Your task to perform on an android device: Open the Play Movies app and select the watchlist tab. Image 0: 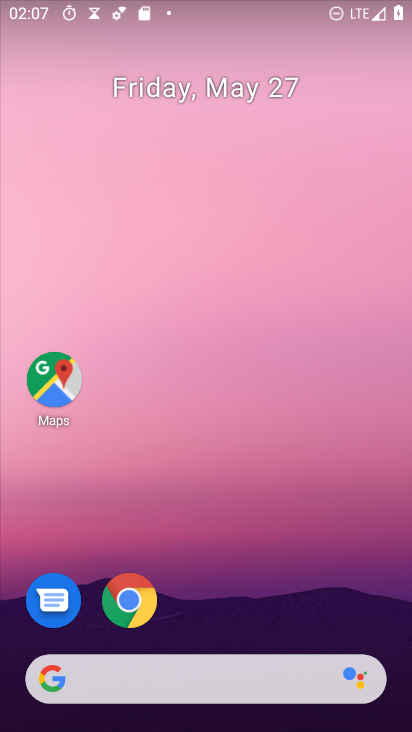
Step 0: drag from (217, 493) to (238, 133)
Your task to perform on an android device: Open the Play Movies app and select the watchlist tab. Image 1: 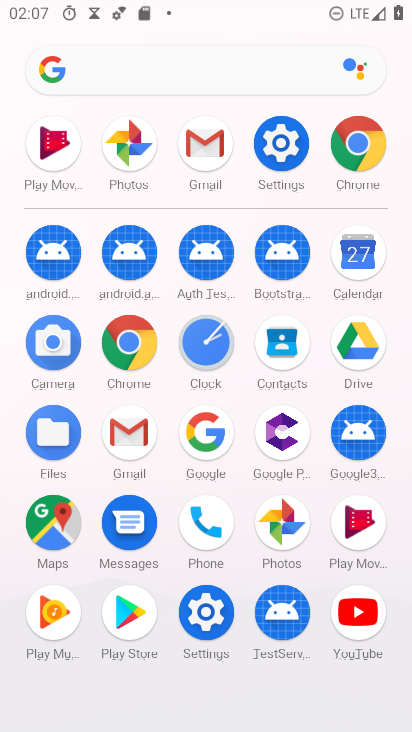
Step 1: click (346, 542)
Your task to perform on an android device: Open the Play Movies app and select the watchlist tab. Image 2: 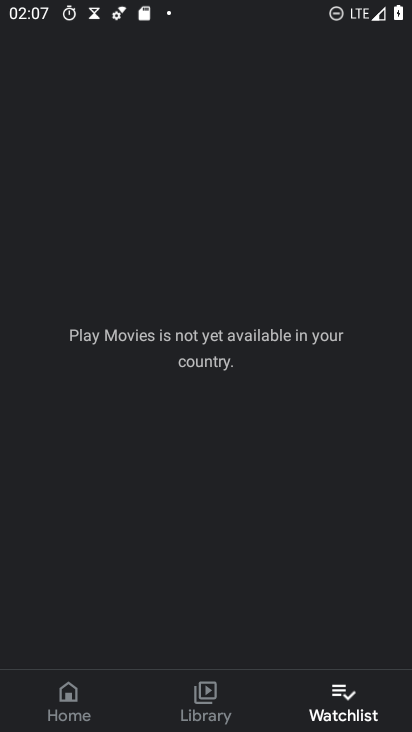
Step 2: task complete